Your task to perform on an android device: What's on my calendar tomorrow? Image 0: 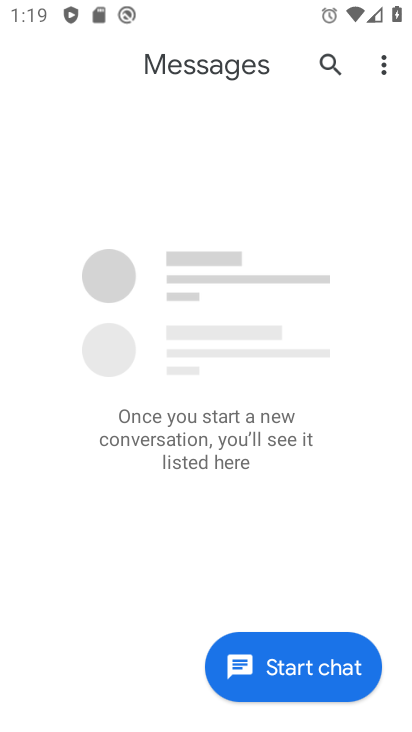
Step 0: press home button
Your task to perform on an android device: What's on my calendar tomorrow? Image 1: 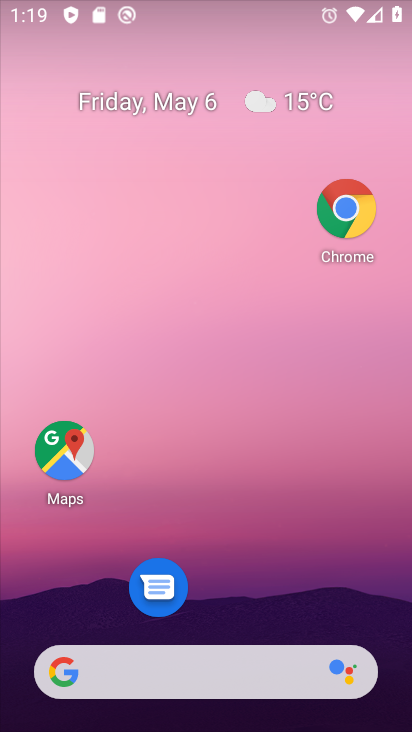
Step 1: drag from (325, 585) to (250, 160)
Your task to perform on an android device: What's on my calendar tomorrow? Image 2: 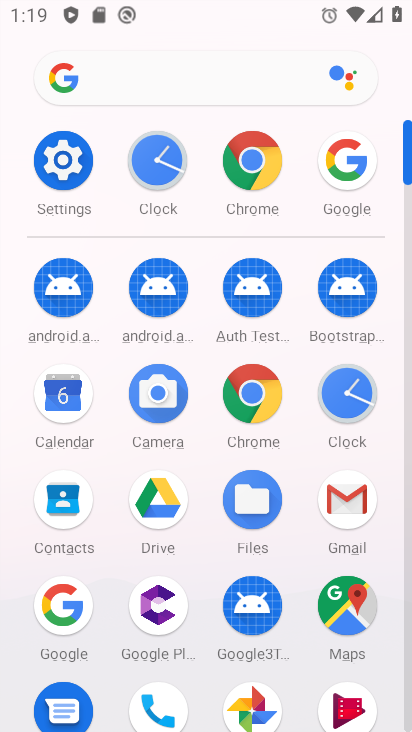
Step 2: click (67, 431)
Your task to perform on an android device: What's on my calendar tomorrow? Image 3: 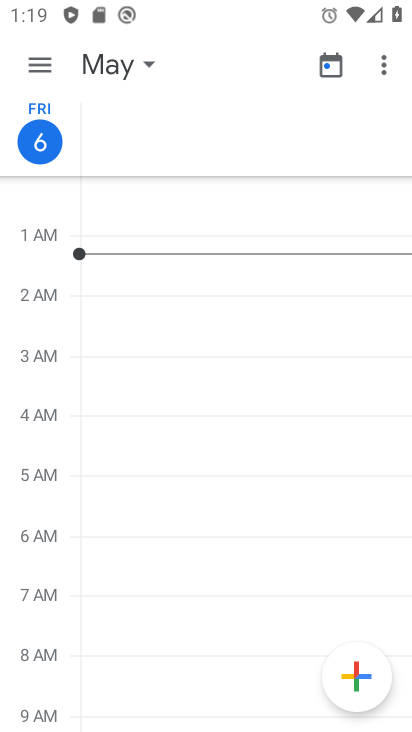
Step 3: click (103, 70)
Your task to perform on an android device: What's on my calendar tomorrow? Image 4: 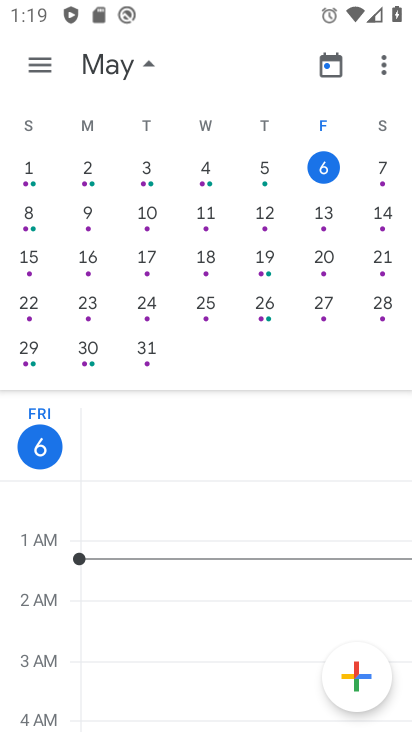
Step 4: click (385, 171)
Your task to perform on an android device: What's on my calendar tomorrow? Image 5: 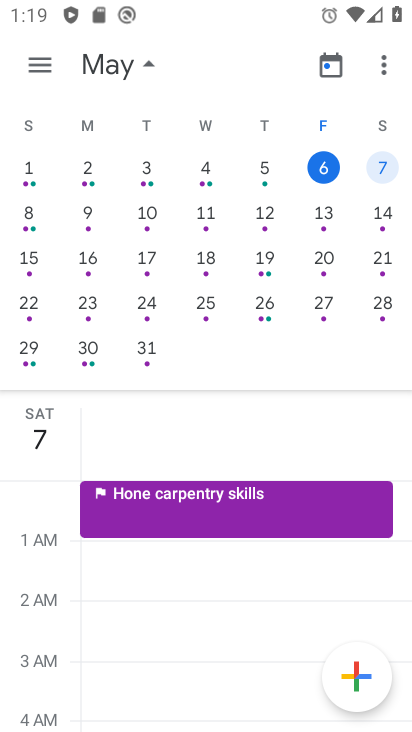
Step 5: drag from (264, 588) to (244, 278)
Your task to perform on an android device: What's on my calendar tomorrow? Image 6: 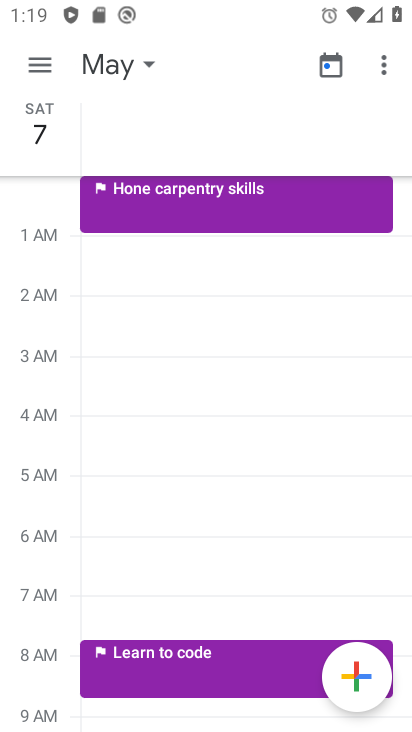
Step 6: click (204, 259)
Your task to perform on an android device: What's on my calendar tomorrow? Image 7: 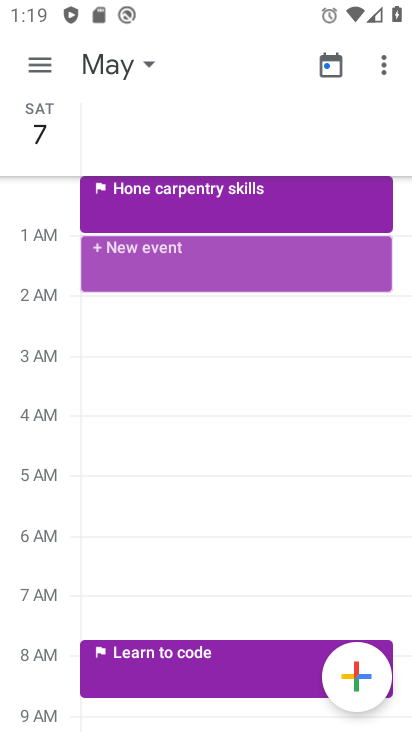
Step 7: task complete